Your task to perform on an android device: Open Wikipedia Image 0: 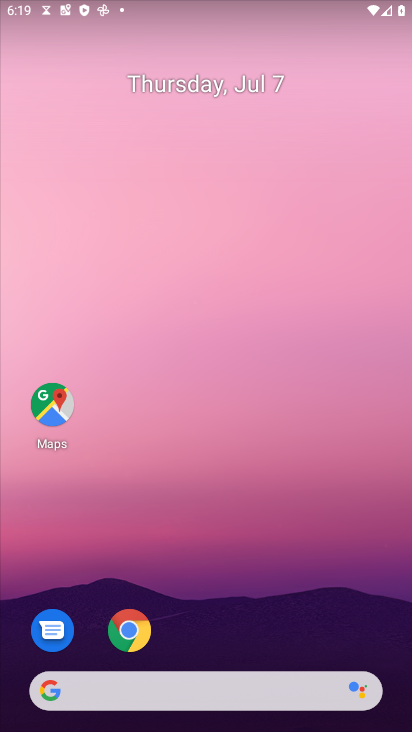
Step 0: drag from (188, 541) to (220, 87)
Your task to perform on an android device: Open Wikipedia Image 1: 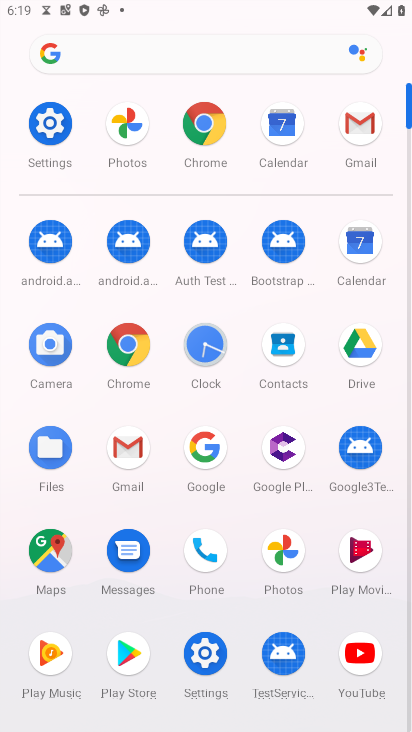
Step 1: click (208, 120)
Your task to perform on an android device: Open Wikipedia Image 2: 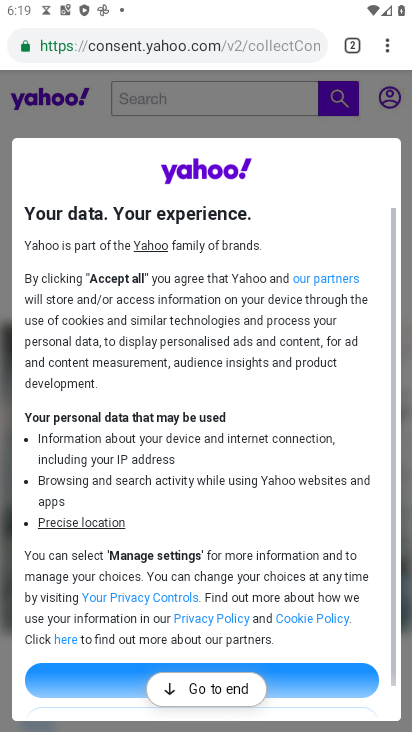
Step 2: press back button
Your task to perform on an android device: Open Wikipedia Image 3: 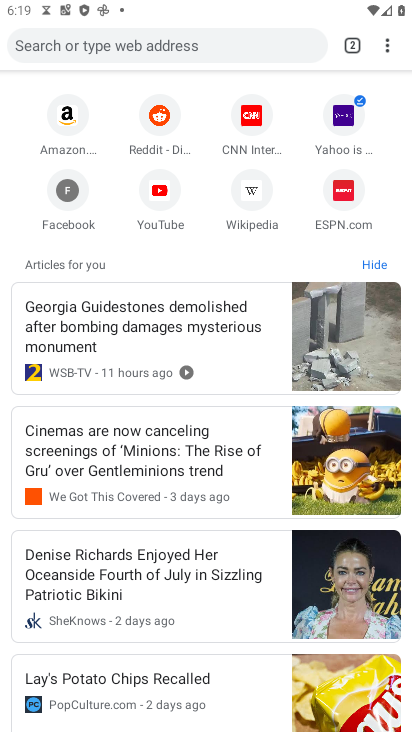
Step 3: click (259, 192)
Your task to perform on an android device: Open Wikipedia Image 4: 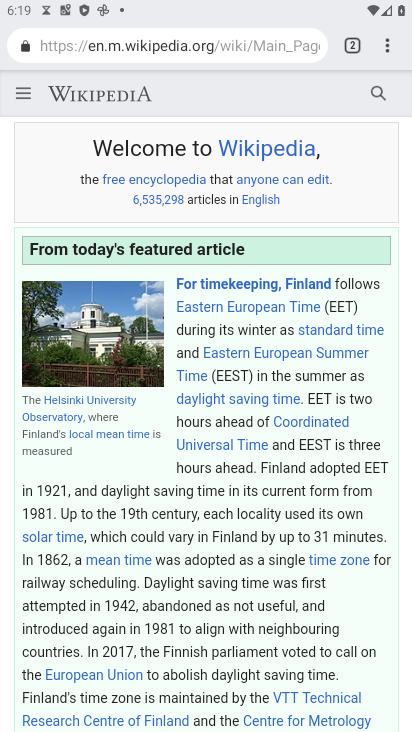
Step 4: task complete